Your task to perform on an android device: Open internet settings Image 0: 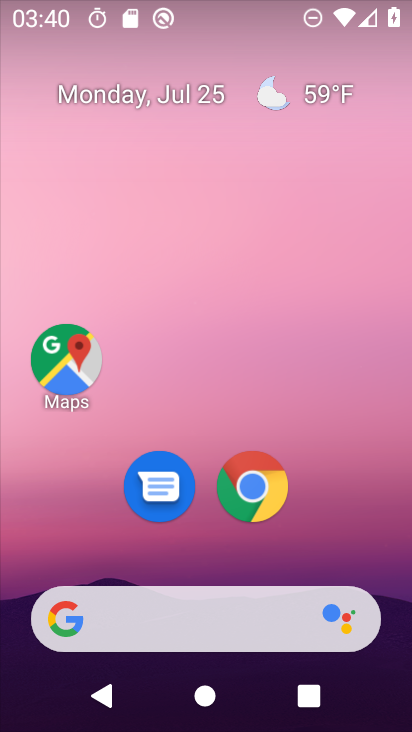
Step 0: drag from (153, 561) to (281, 2)
Your task to perform on an android device: Open internet settings Image 1: 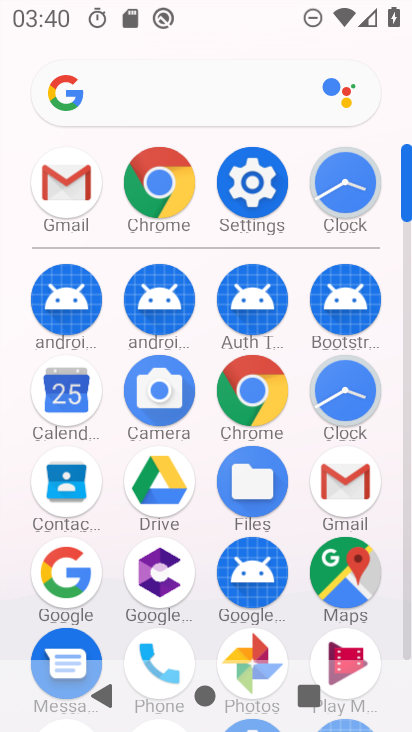
Step 1: click (258, 173)
Your task to perform on an android device: Open internet settings Image 2: 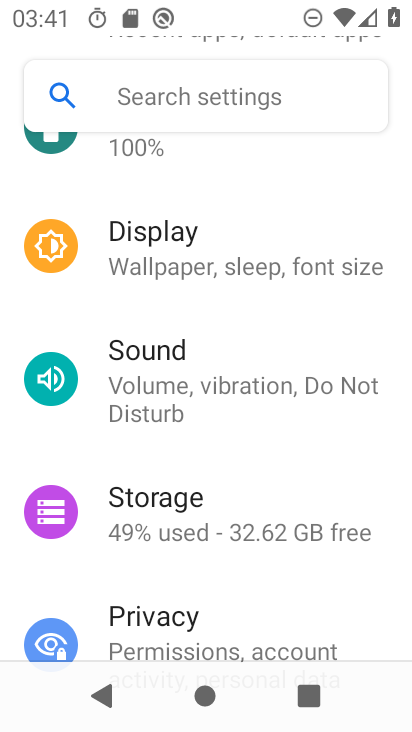
Step 2: drag from (265, 175) to (241, 661)
Your task to perform on an android device: Open internet settings Image 3: 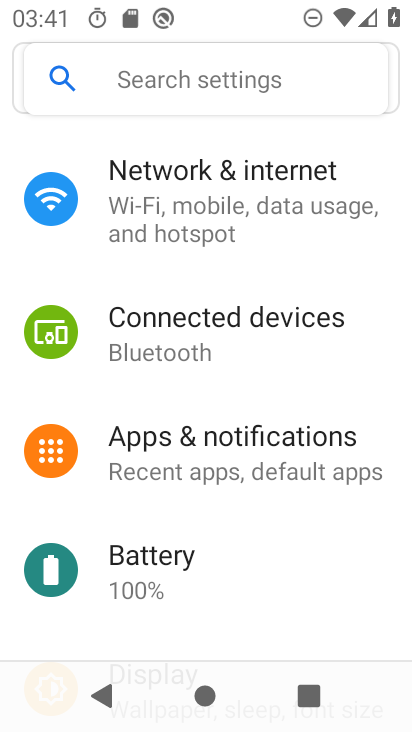
Step 3: click (230, 176)
Your task to perform on an android device: Open internet settings Image 4: 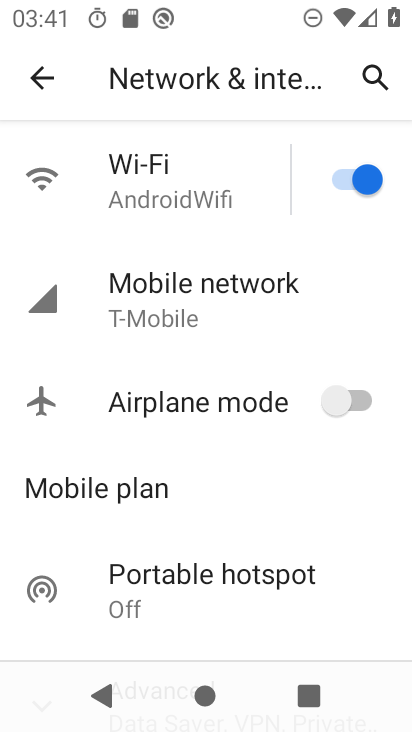
Step 4: task complete